Your task to perform on an android device: Check the settings for the Google Play Books app Image 0: 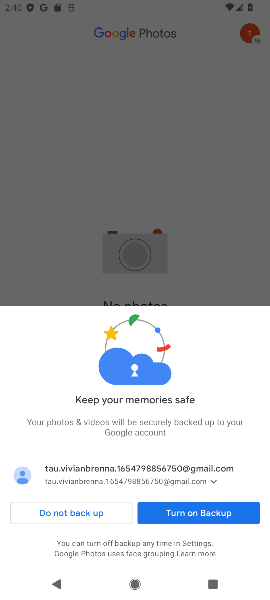
Step 0: press home button
Your task to perform on an android device: Check the settings for the Google Play Books app Image 1: 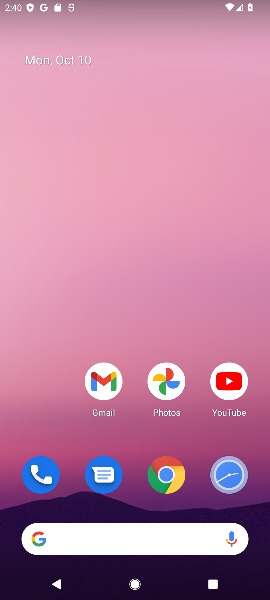
Step 1: task complete